Your task to perform on an android device: turn on notifications settings in the gmail app Image 0: 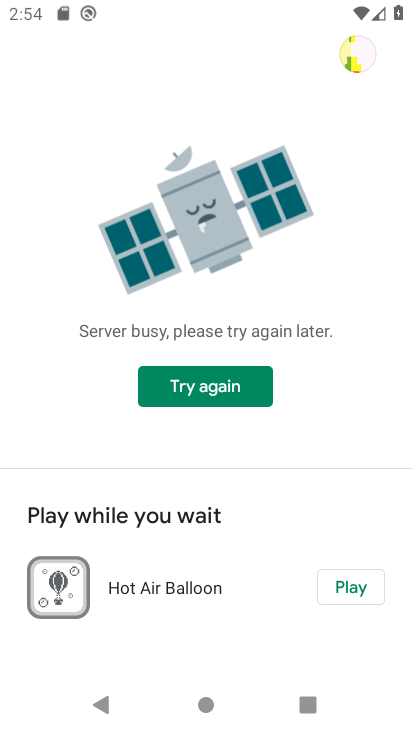
Step 0: press home button
Your task to perform on an android device: turn on notifications settings in the gmail app Image 1: 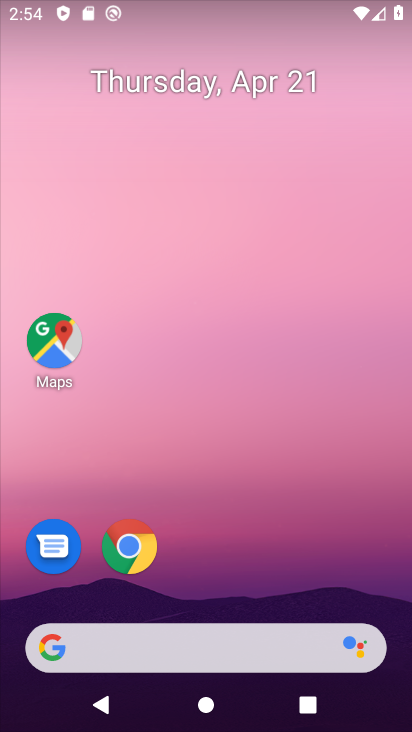
Step 1: drag from (252, 638) to (251, 65)
Your task to perform on an android device: turn on notifications settings in the gmail app Image 2: 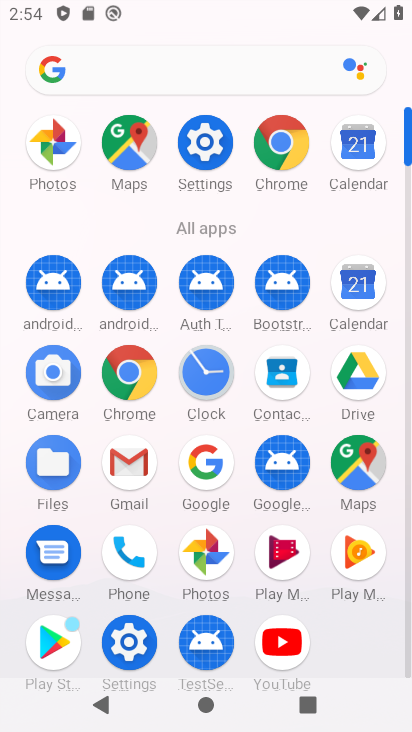
Step 2: click (136, 473)
Your task to perform on an android device: turn on notifications settings in the gmail app Image 3: 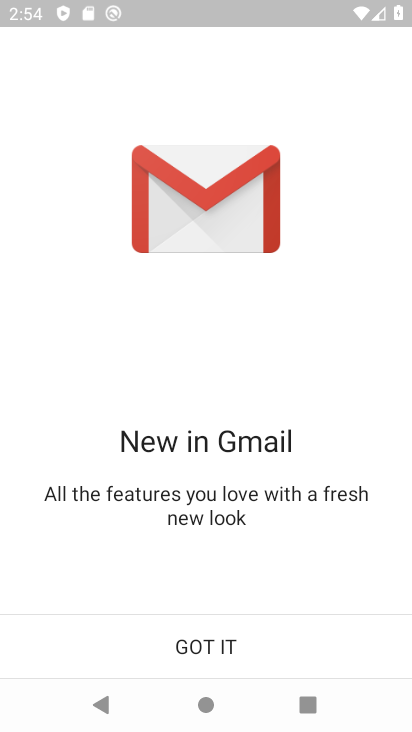
Step 3: click (221, 635)
Your task to perform on an android device: turn on notifications settings in the gmail app Image 4: 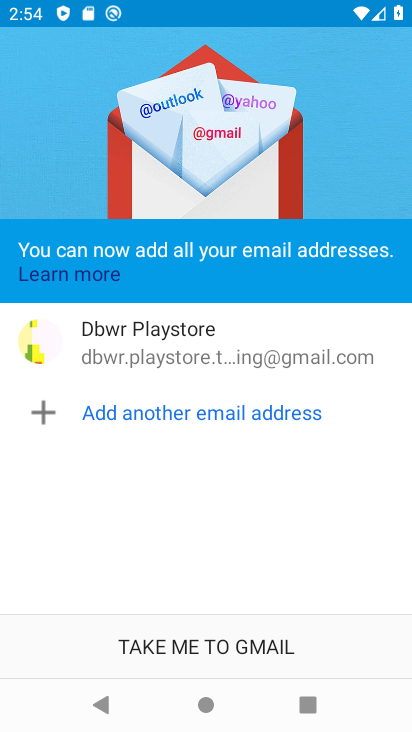
Step 4: click (202, 646)
Your task to perform on an android device: turn on notifications settings in the gmail app Image 5: 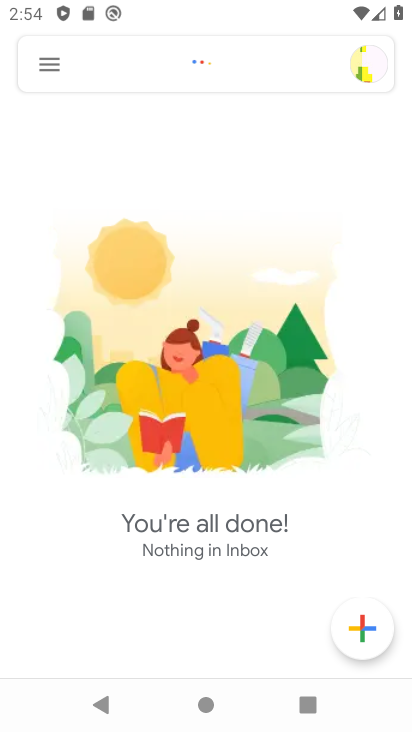
Step 5: click (43, 61)
Your task to perform on an android device: turn on notifications settings in the gmail app Image 6: 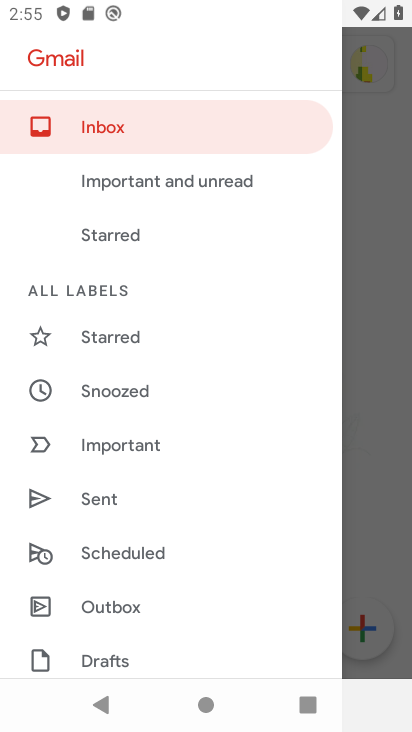
Step 6: drag from (124, 637) to (123, 360)
Your task to perform on an android device: turn on notifications settings in the gmail app Image 7: 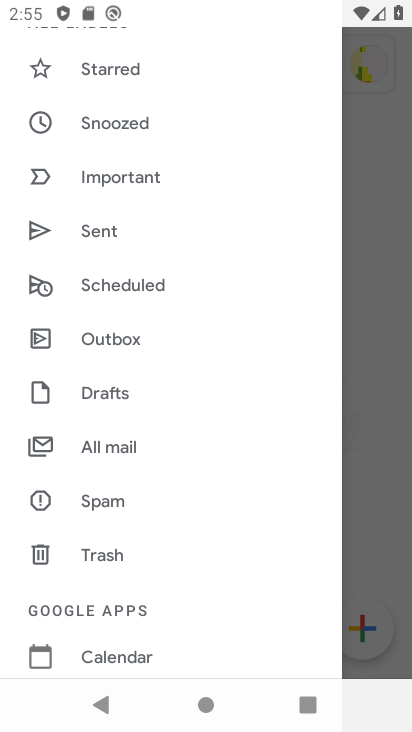
Step 7: drag from (190, 619) to (185, 417)
Your task to perform on an android device: turn on notifications settings in the gmail app Image 8: 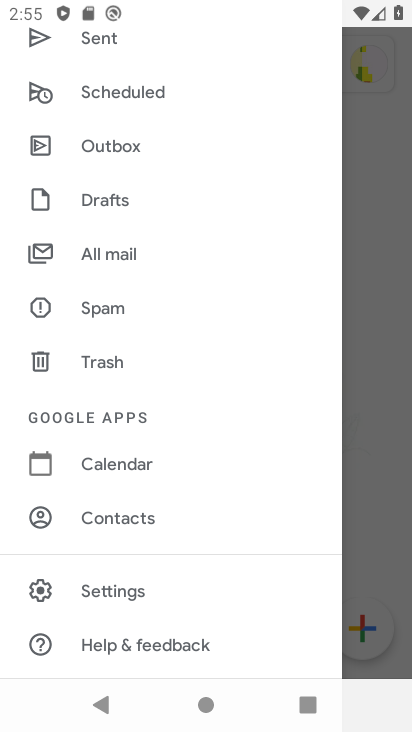
Step 8: click (123, 597)
Your task to perform on an android device: turn on notifications settings in the gmail app Image 9: 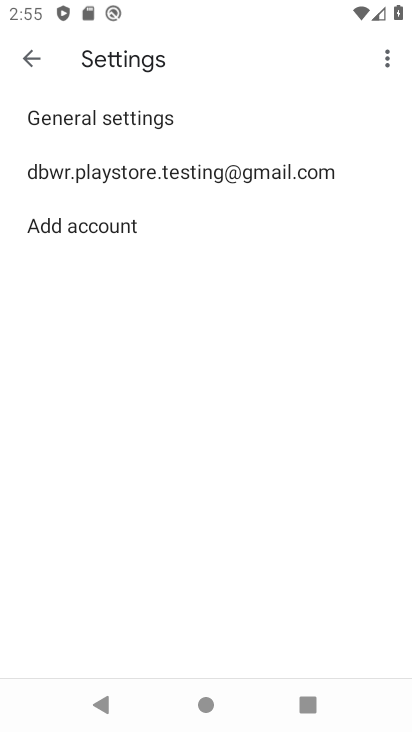
Step 9: click (304, 177)
Your task to perform on an android device: turn on notifications settings in the gmail app Image 10: 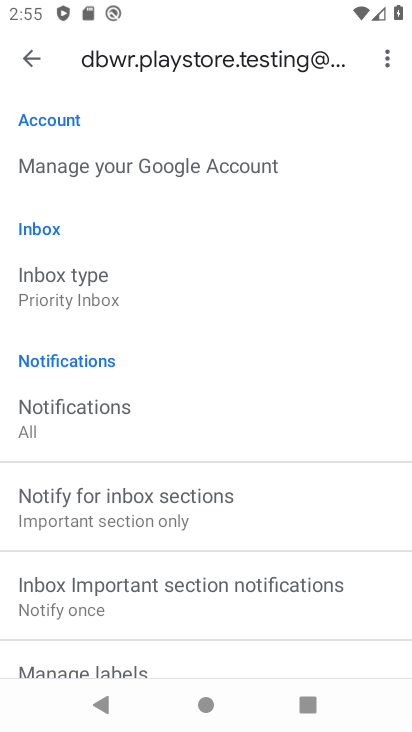
Step 10: click (107, 413)
Your task to perform on an android device: turn on notifications settings in the gmail app Image 11: 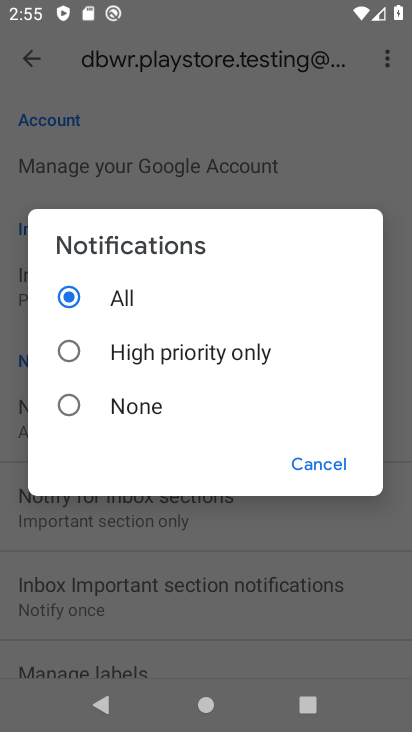
Step 11: click (72, 297)
Your task to perform on an android device: turn on notifications settings in the gmail app Image 12: 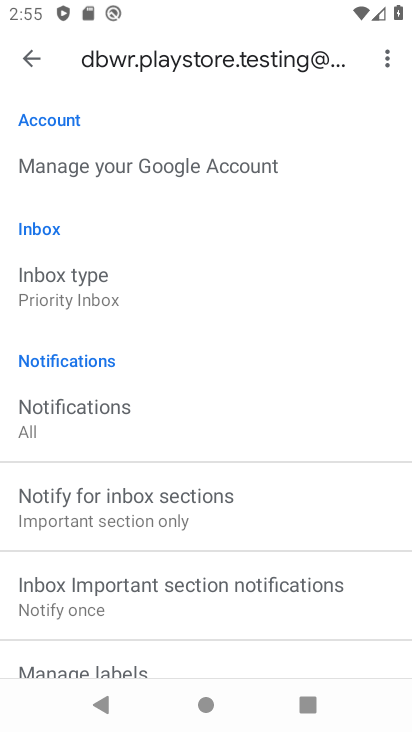
Step 12: task complete